Your task to perform on an android device: What's on my calendar tomorrow? Image 0: 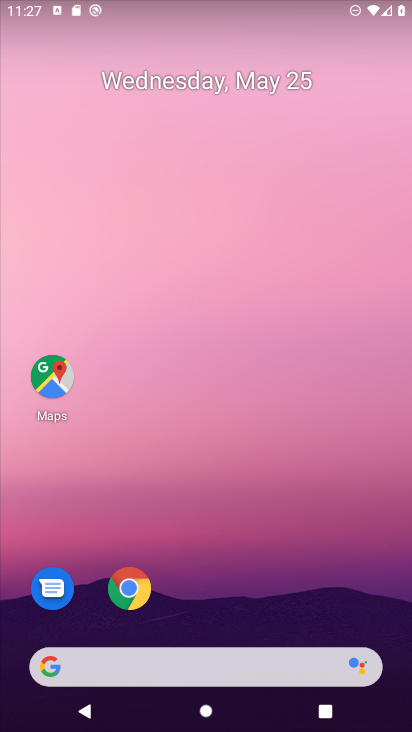
Step 0: press home button
Your task to perform on an android device: What's on my calendar tomorrow? Image 1: 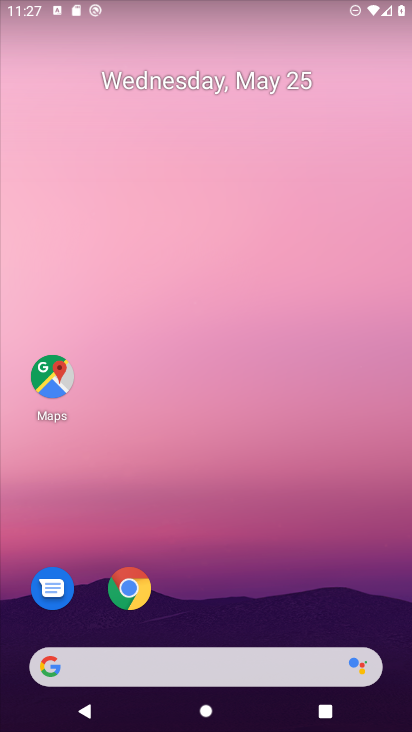
Step 1: drag from (32, 568) to (284, 116)
Your task to perform on an android device: What's on my calendar tomorrow? Image 2: 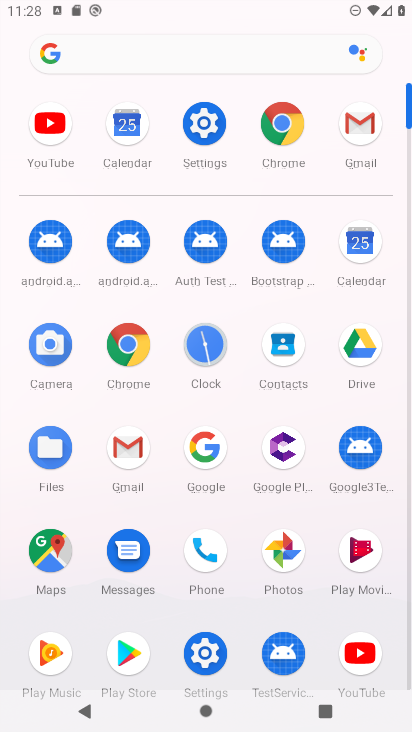
Step 2: click (343, 254)
Your task to perform on an android device: What's on my calendar tomorrow? Image 3: 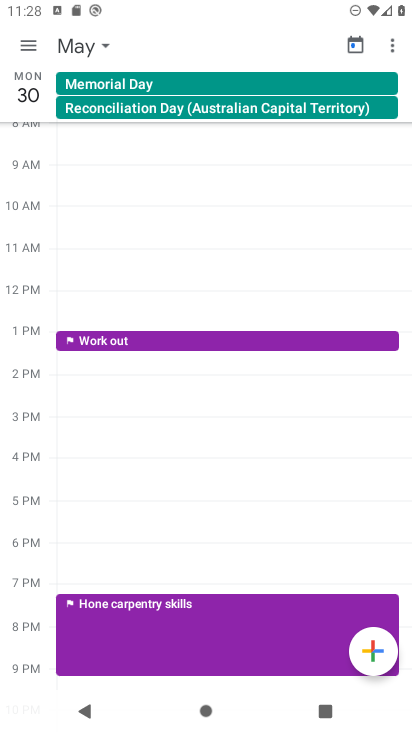
Step 3: click (81, 37)
Your task to perform on an android device: What's on my calendar tomorrow? Image 4: 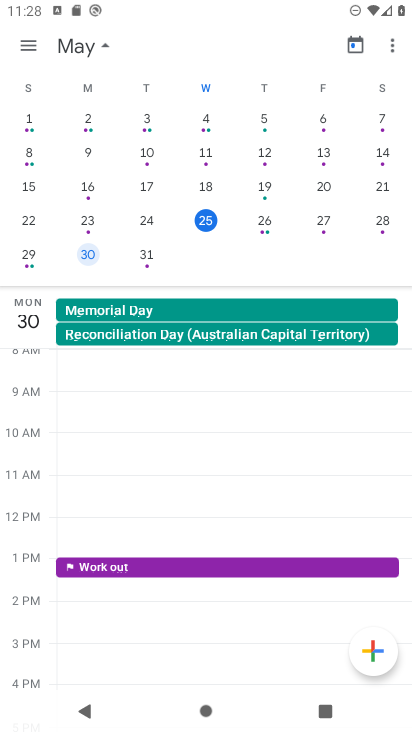
Step 4: click (269, 225)
Your task to perform on an android device: What's on my calendar tomorrow? Image 5: 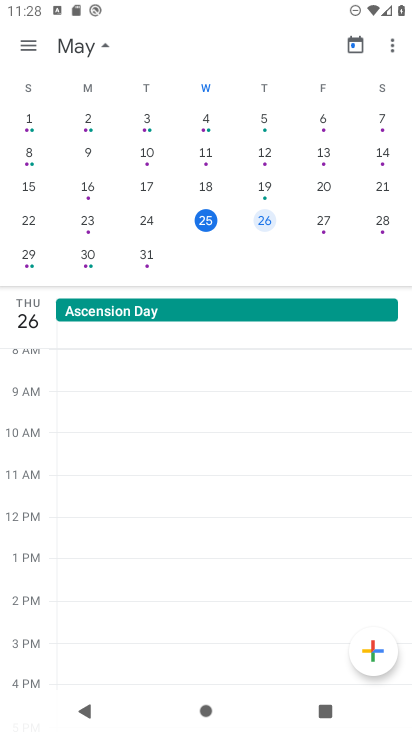
Step 5: task complete